Your task to perform on an android device: What's the weather today? Image 0: 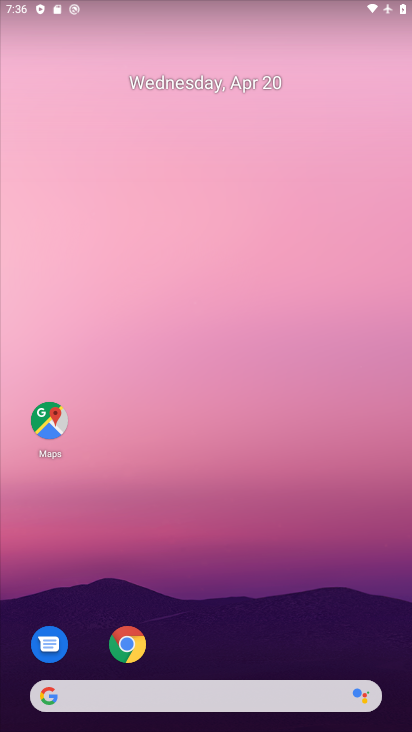
Step 0: drag from (354, 609) to (284, 48)
Your task to perform on an android device: What's the weather today? Image 1: 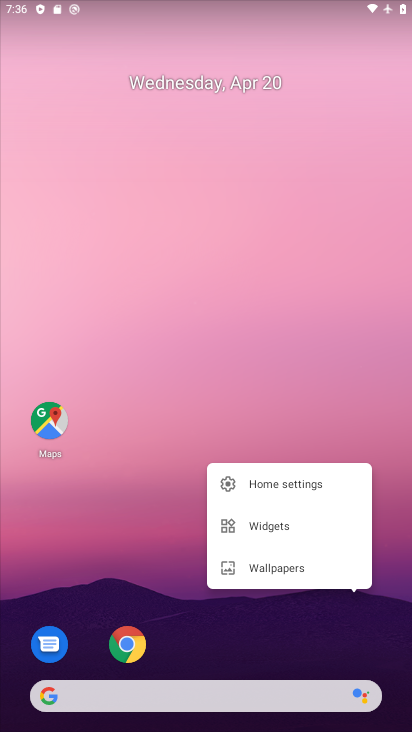
Step 1: click (245, 293)
Your task to perform on an android device: What's the weather today? Image 2: 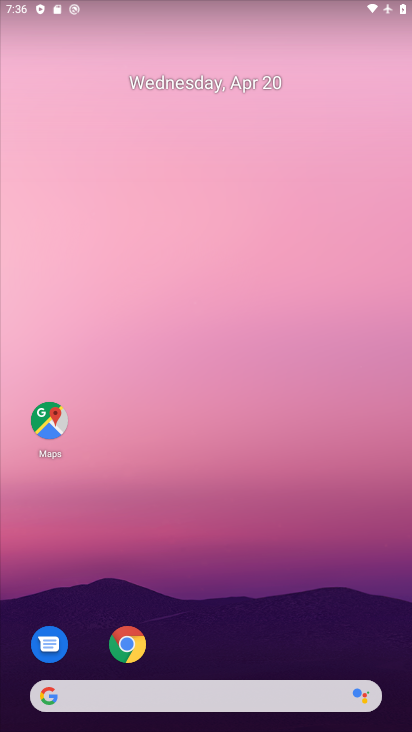
Step 2: click (179, 704)
Your task to perform on an android device: What's the weather today? Image 3: 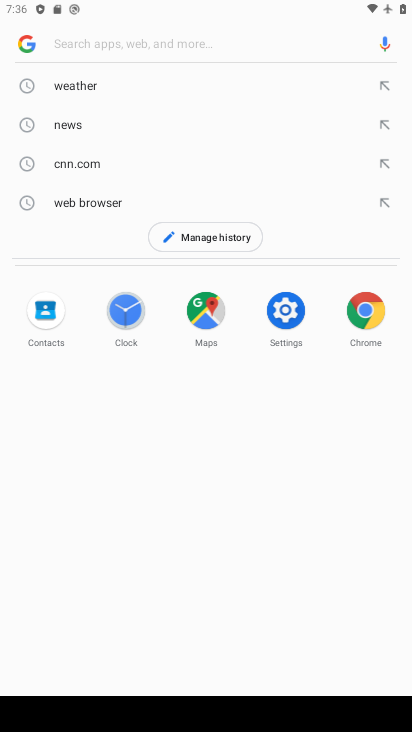
Step 3: click (141, 75)
Your task to perform on an android device: What's the weather today? Image 4: 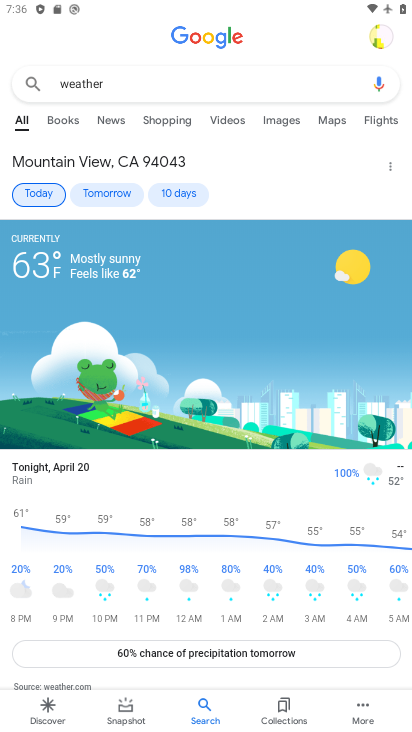
Step 4: task complete